Your task to perform on an android device: What's the weather? Image 0: 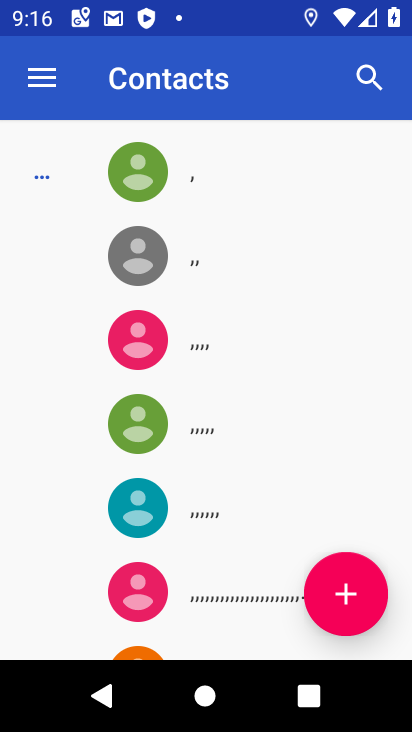
Step 0: press back button
Your task to perform on an android device: What's the weather? Image 1: 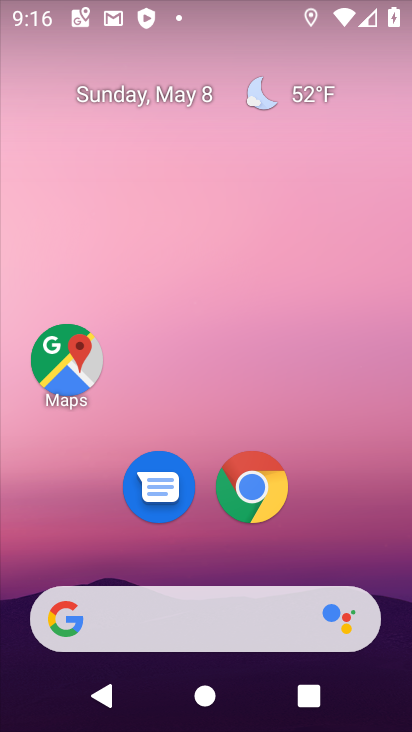
Step 1: drag from (399, 627) to (212, 68)
Your task to perform on an android device: What's the weather? Image 2: 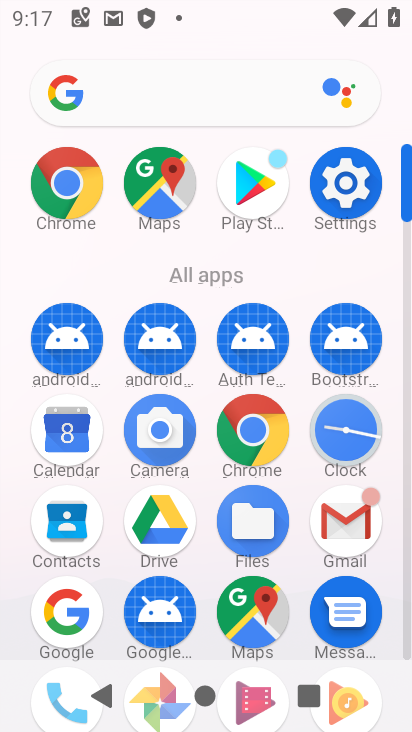
Step 2: click (66, 171)
Your task to perform on an android device: What's the weather? Image 3: 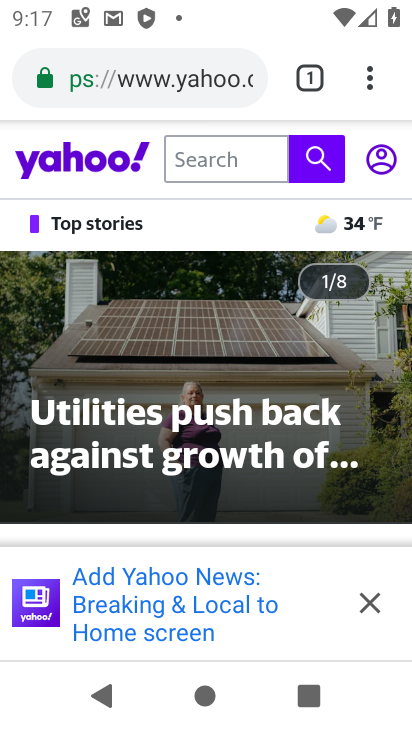
Step 3: press back button
Your task to perform on an android device: What's the weather? Image 4: 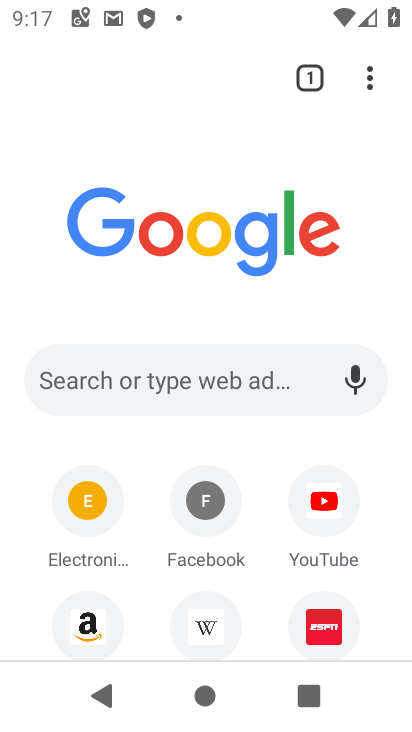
Step 4: click (181, 369)
Your task to perform on an android device: What's the weather? Image 5: 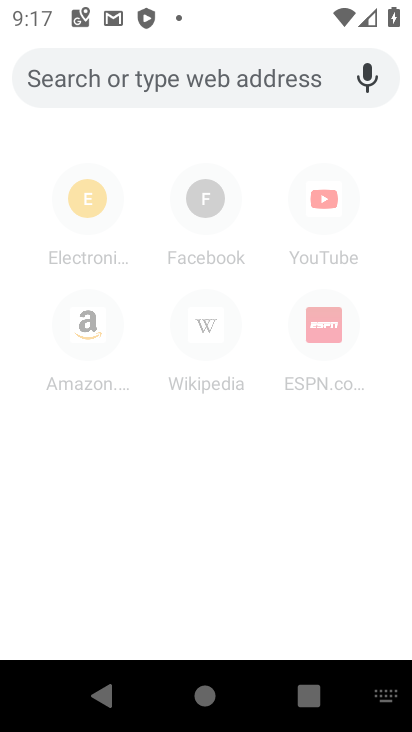
Step 5: type "wealther"
Your task to perform on an android device: What's the weather? Image 6: 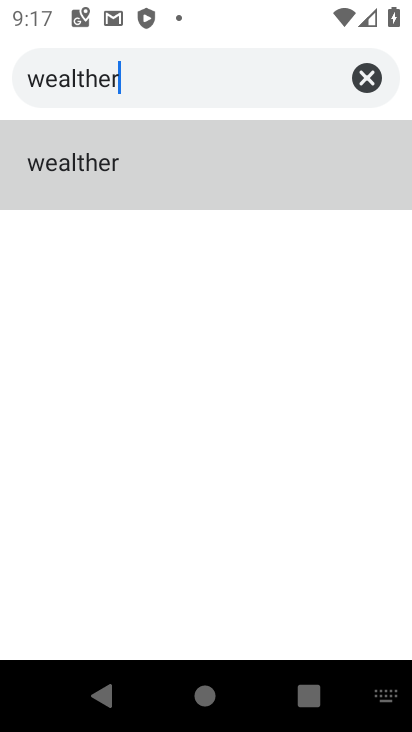
Step 6: click (82, 157)
Your task to perform on an android device: What's the weather? Image 7: 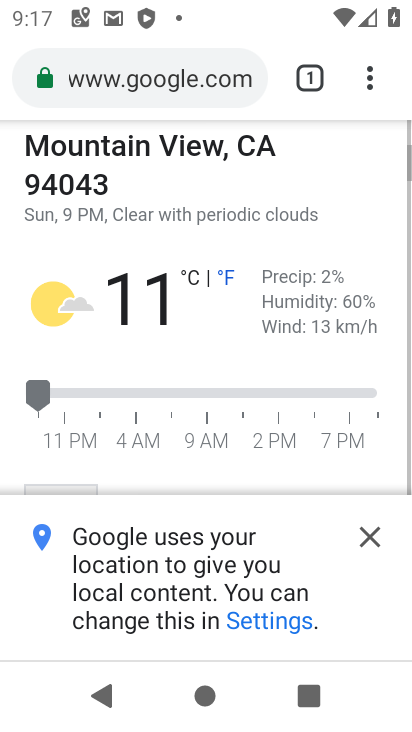
Step 7: click (381, 546)
Your task to perform on an android device: What's the weather? Image 8: 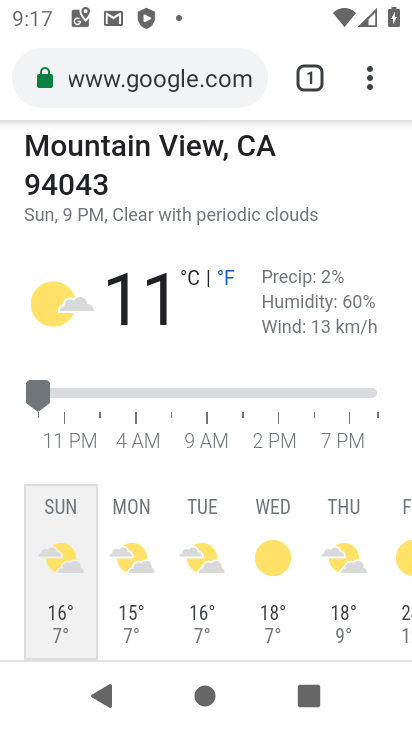
Step 8: task complete